Your task to perform on an android device: find snoozed emails in the gmail app Image 0: 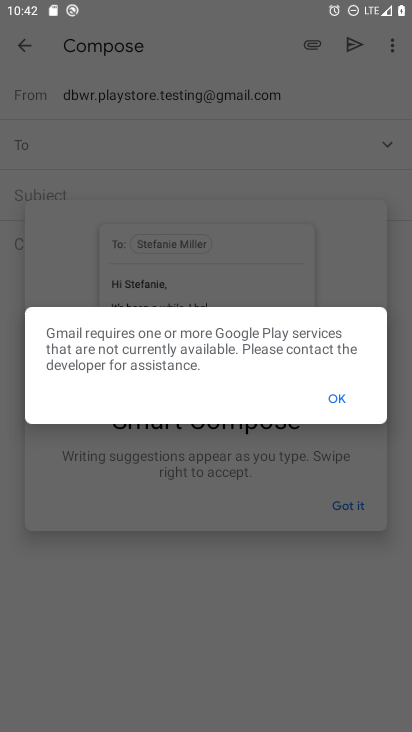
Step 0: press home button
Your task to perform on an android device: find snoozed emails in the gmail app Image 1: 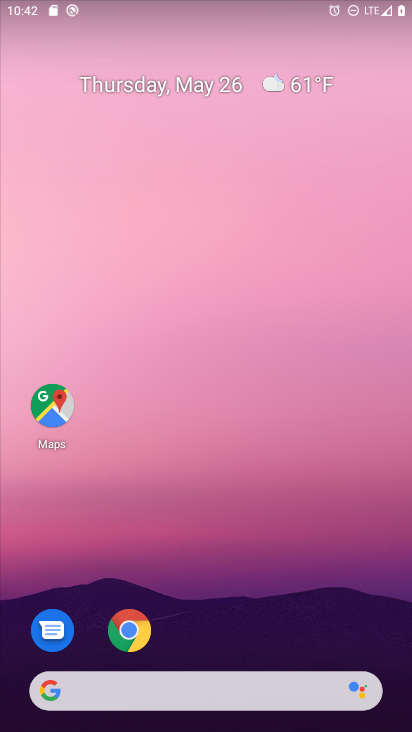
Step 1: drag from (187, 653) to (332, 91)
Your task to perform on an android device: find snoozed emails in the gmail app Image 2: 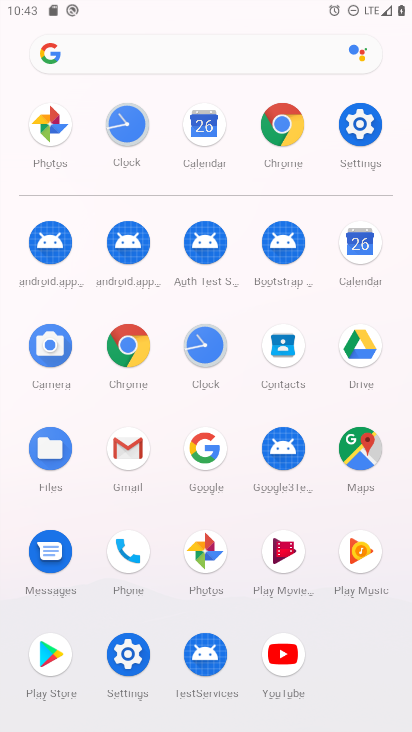
Step 2: click (110, 452)
Your task to perform on an android device: find snoozed emails in the gmail app Image 3: 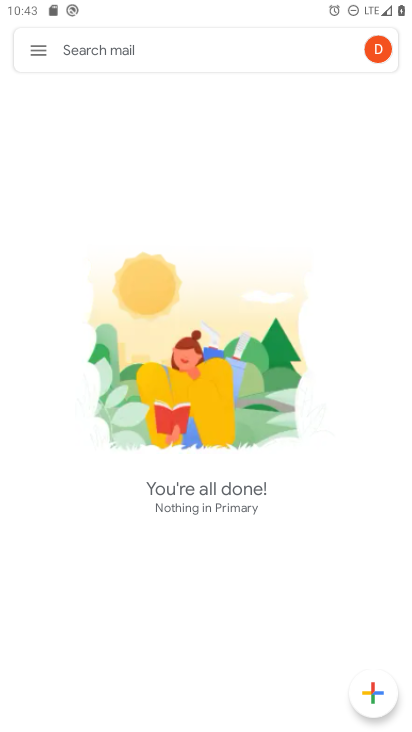
Step 3: click (29, 43)
Your task to perform on an android device: find snoozed emails in the gmail app Image 4: 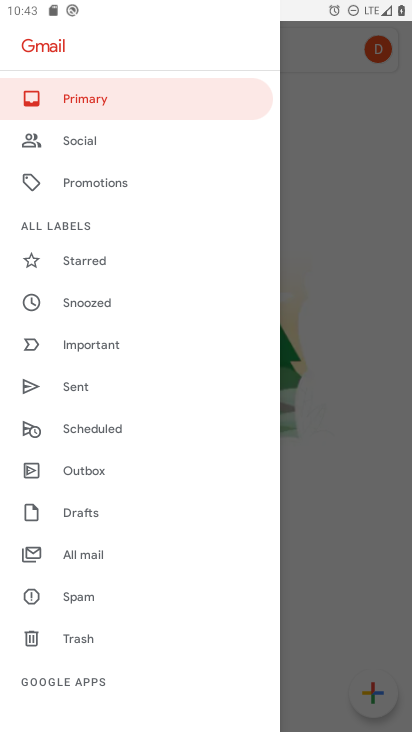
Step 4: click (99, 308)
Your task to perform on an android device: find snoozed emails in the gmail app Image 5: 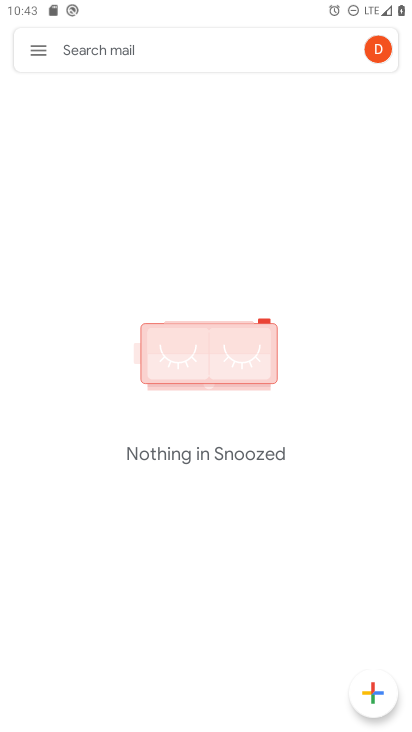
Step 5: task complete